Your task to perform on an android device: set the stopwatch Image 0: 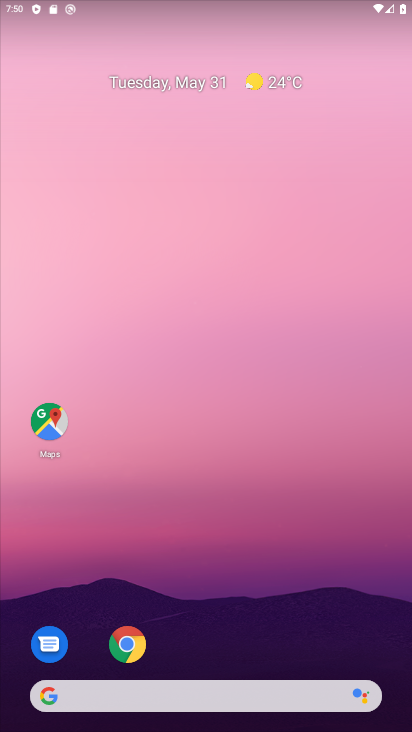
Step 0: drag from (259, 164) to (287, 55)
Your task to perform on an android device: set the stopwatch Image 1: 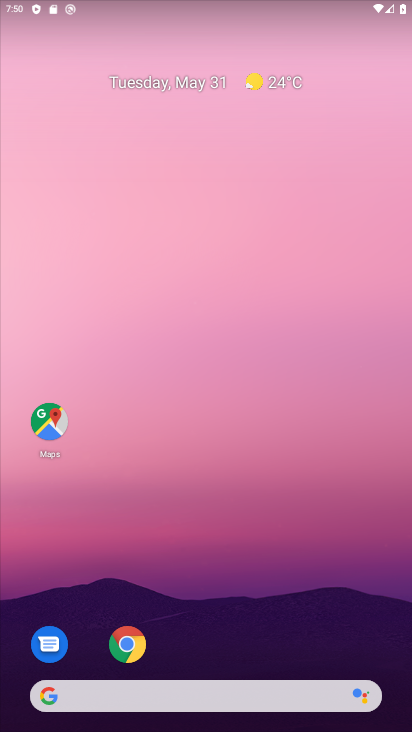
Step 1: drag from (276, 594) to (291, 162)
Your task to perform on an android device: set the stopwatch Image 2: 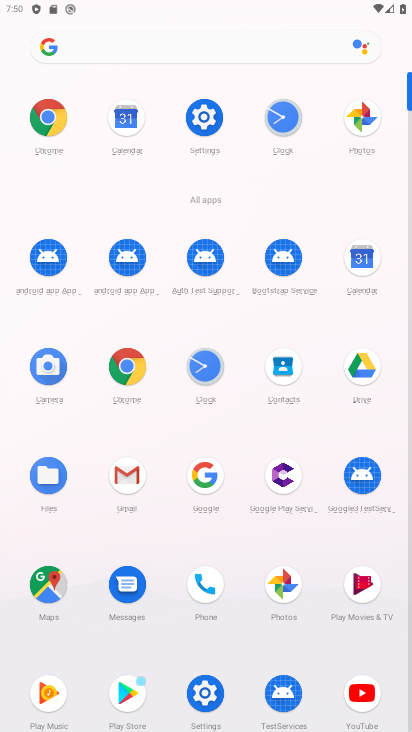
Step 2: click (195, 360)
Your task to perform on an android device: set the stopwatch Image 3: 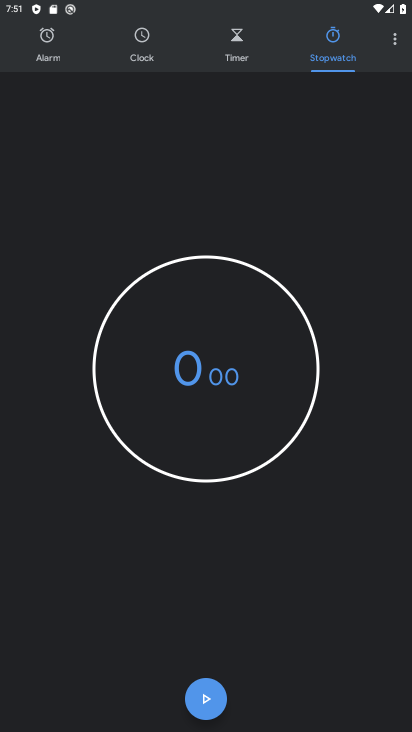
Step 3: task complete